Your task to perform on an android device: show emergency info Image 0: 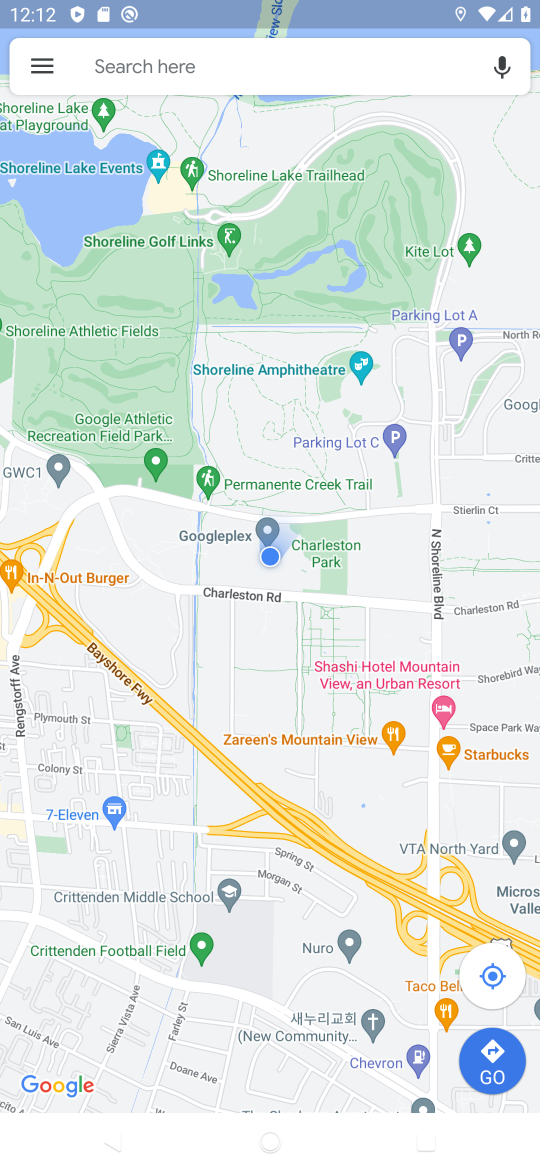
Step 0: press home button
Your task to perform on an android device: show emergency info Image 1: 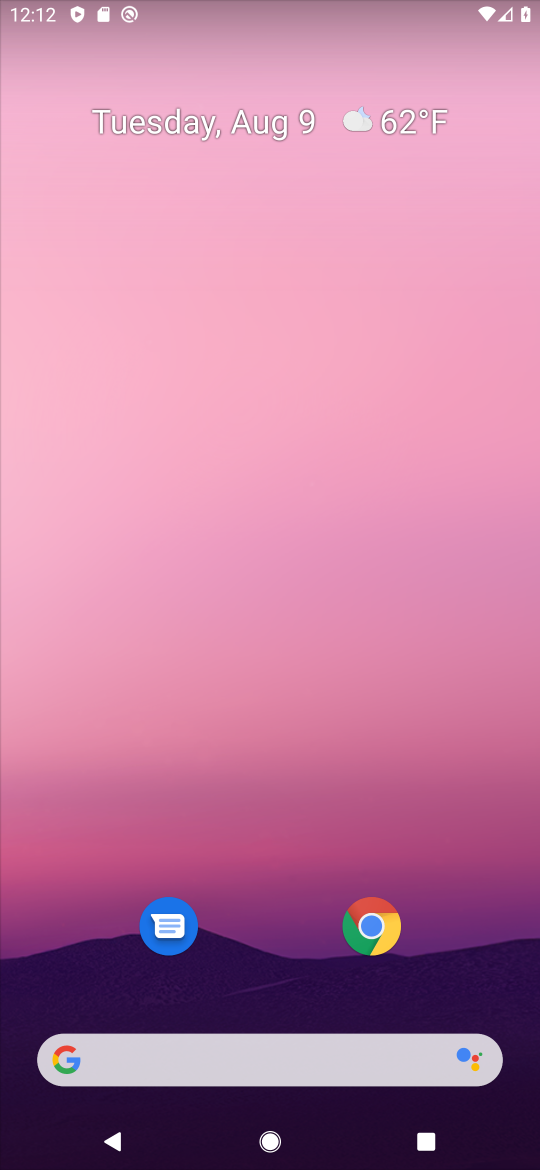
Step 1: click (109, 582)
Your task to perform on an android device: show emergency info Image 2: 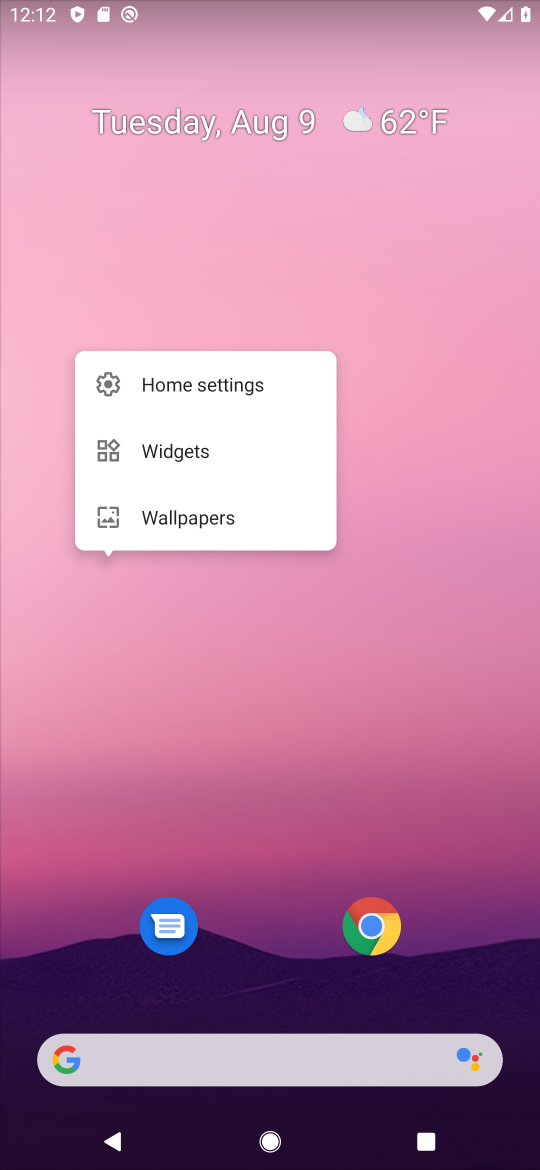
Step 2: drag from (49, 870) to (226, 314)
Your task to perform on an android device: show emergency info Image 3: 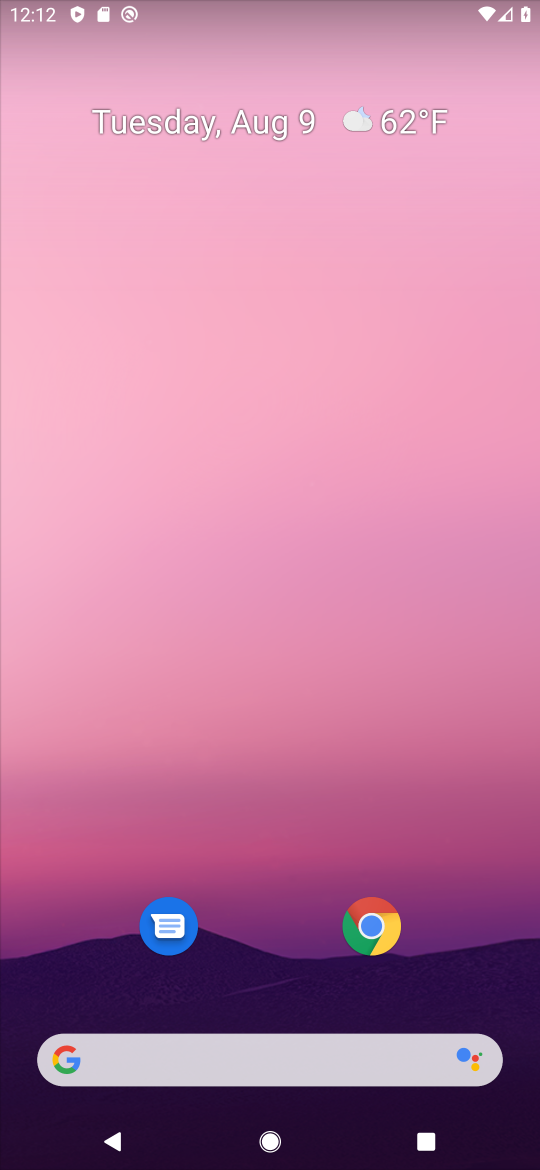
Step 3: drag from (90, 843) to (231, 342)
Your task to perform on an android device: show emergency info Image 4: 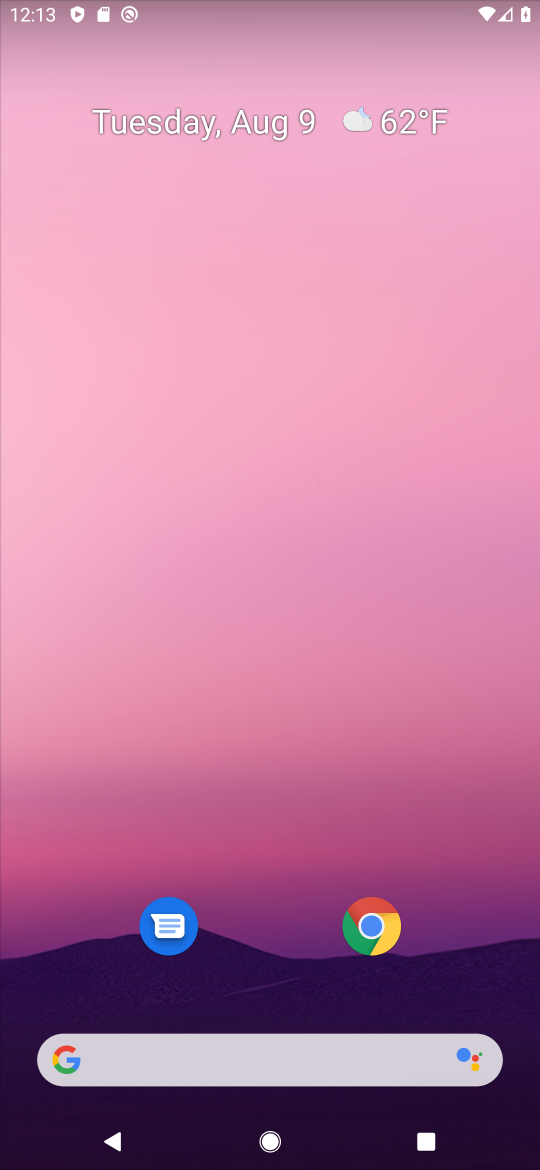
Step 4: drag from (67, 641) to (253, 176)
Your task to perform on an android device: show emergency info Image 5: 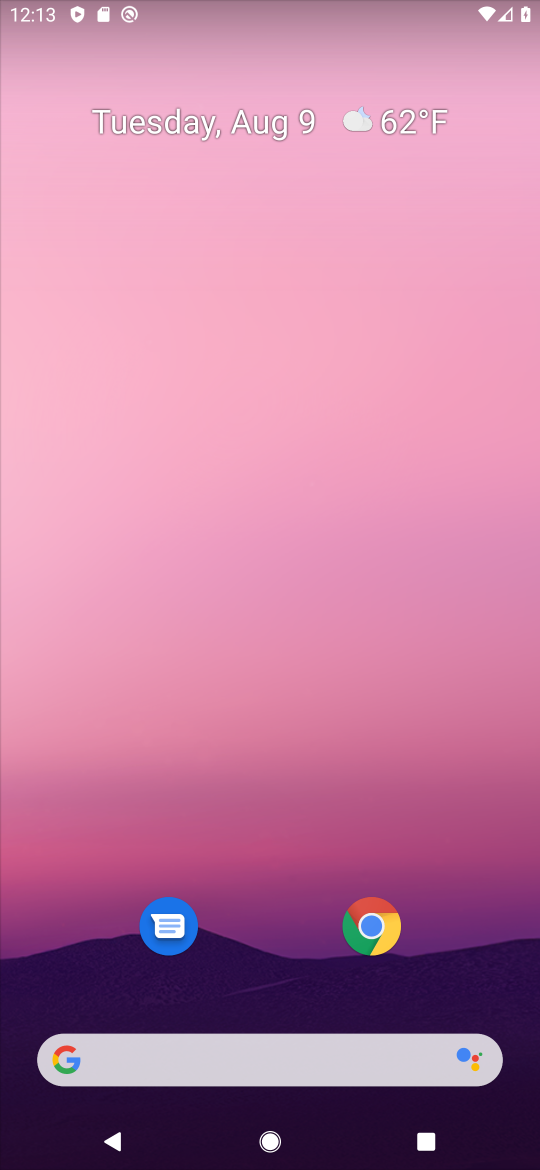
Step 5: drag from (27, 954) to (278, 142)
Your task to perform on an android device: show emergency info Image 6: 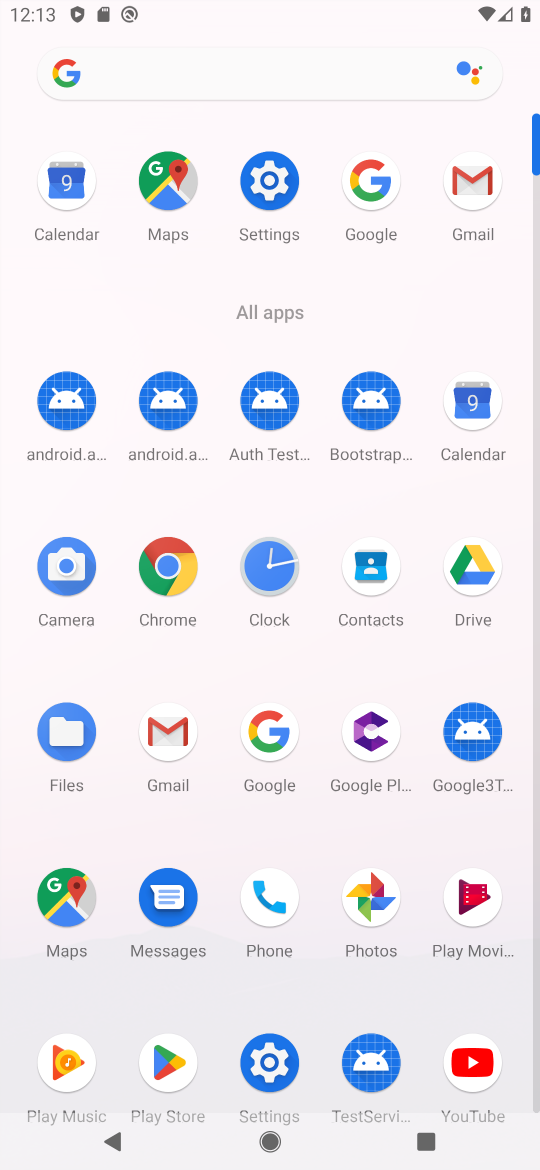
Step 6: click (267, 170)
Your task to perform on an android device: show emergency info Image 7: 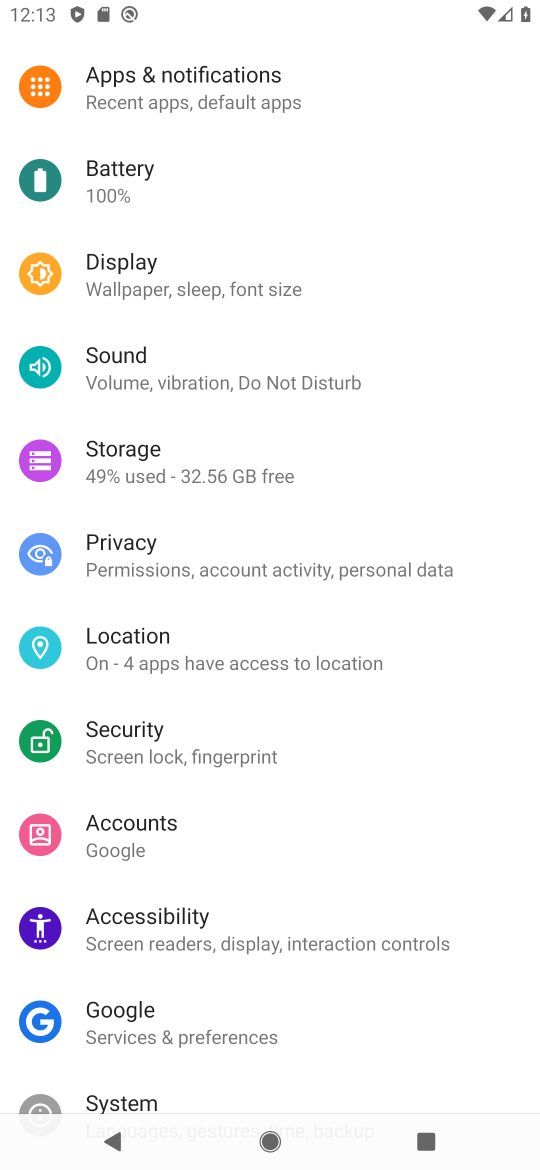
Step 7: drag from (23, 966) to (336, 93)
Your task to perform on an android device: show emergency info Image 8: 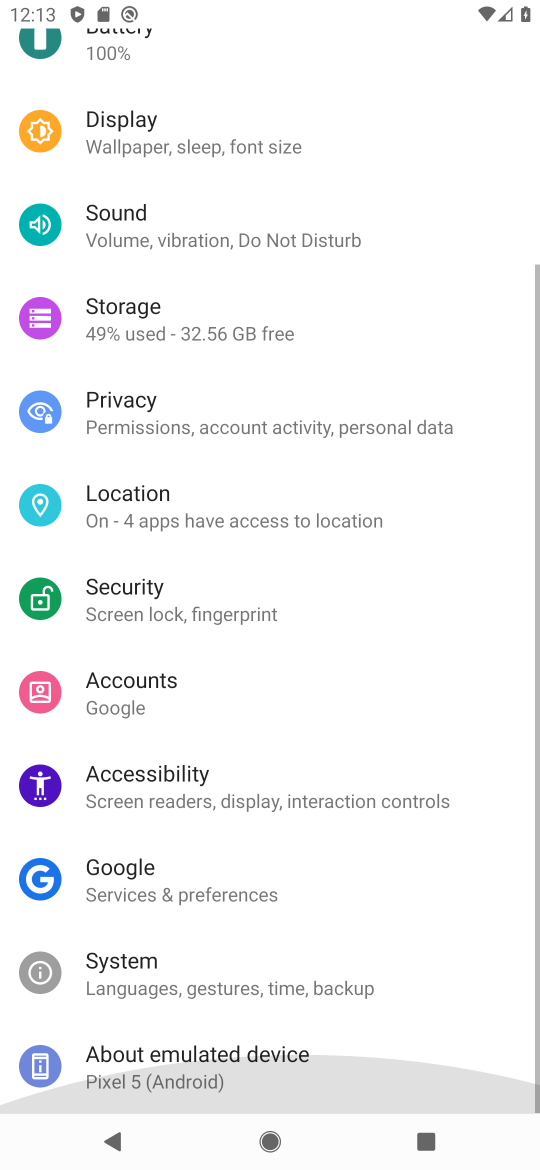
Step 8: click (365, 49)
Your task to perform on an android device: show emergency info Image 9: 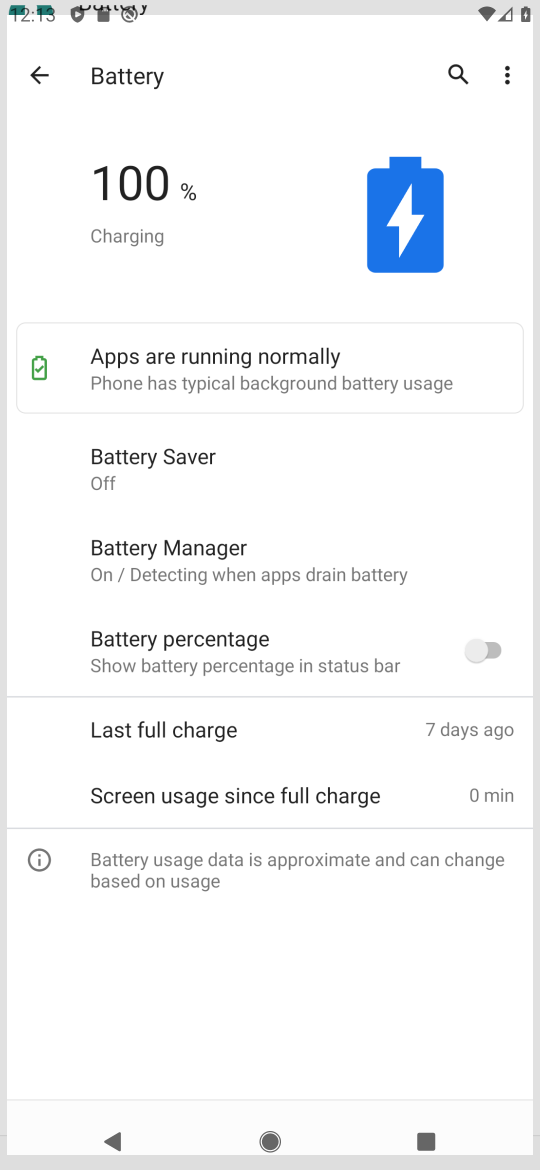
Step 9: click (170, 1077)
Your task to perform on an android device: show emergency info Image 10: 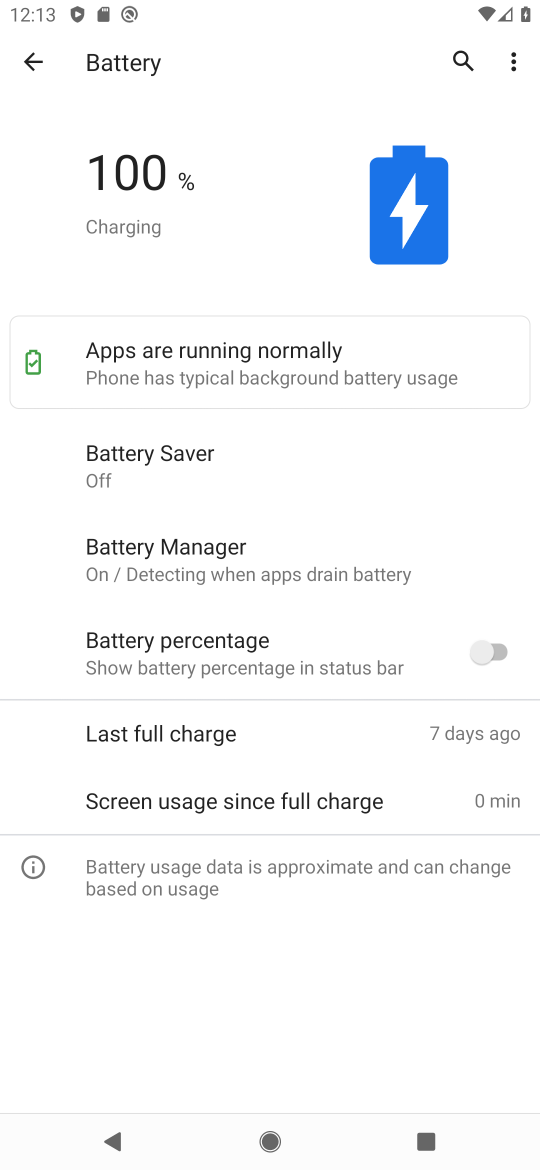
Step 10: click (175, 1064)
Your task to perform on an android device: show emergency info Image 11: 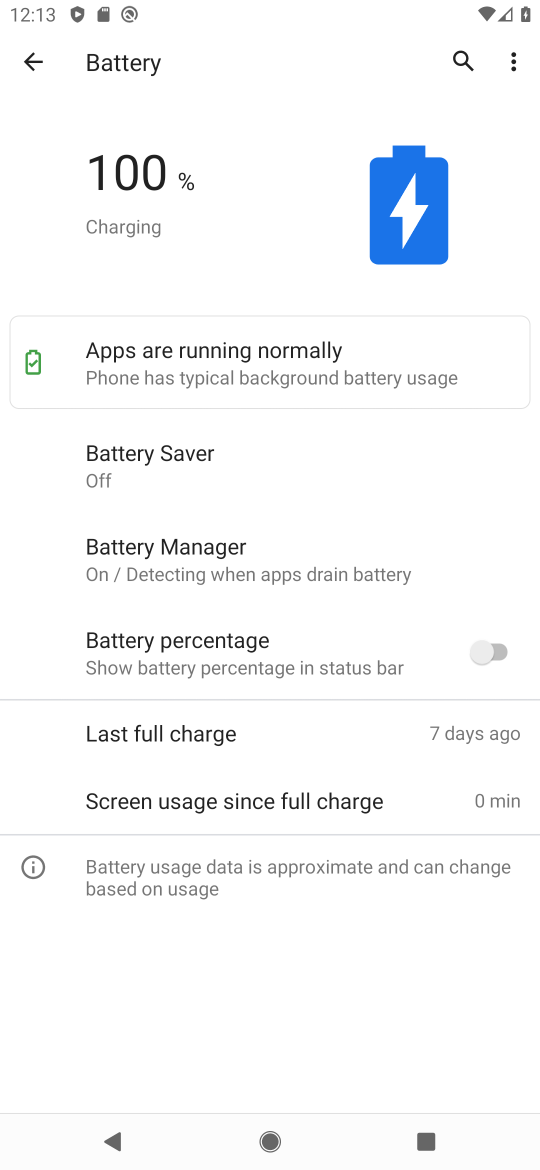
Step 11: press back button
Your task to perform on an android device: show emergency info Image 12: 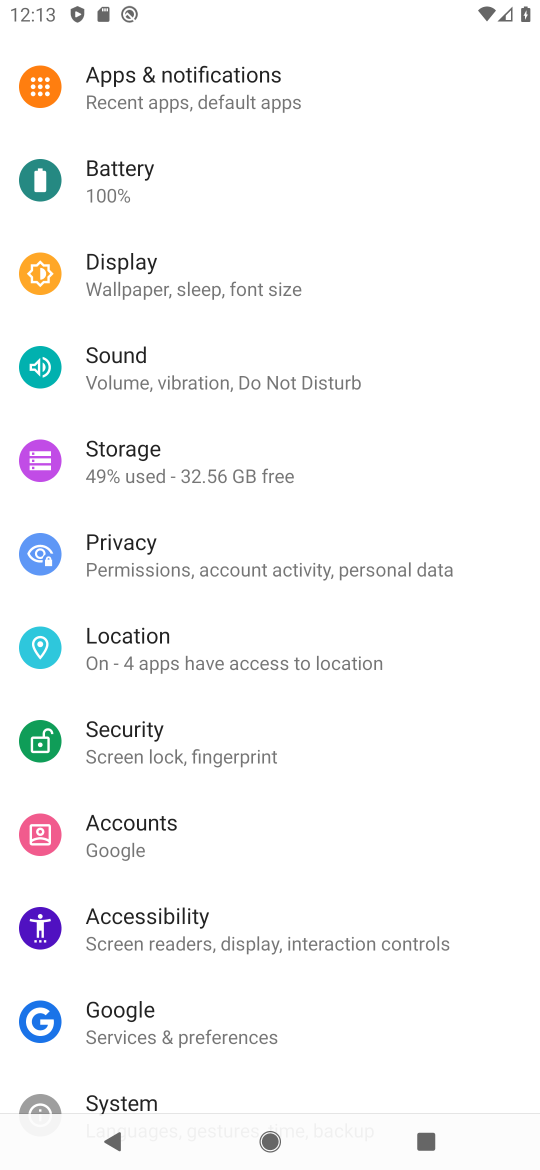
Step 12: drag from (94, 804) to (344, 150)
Your task to perform on an android device: show emergency info Image 13: 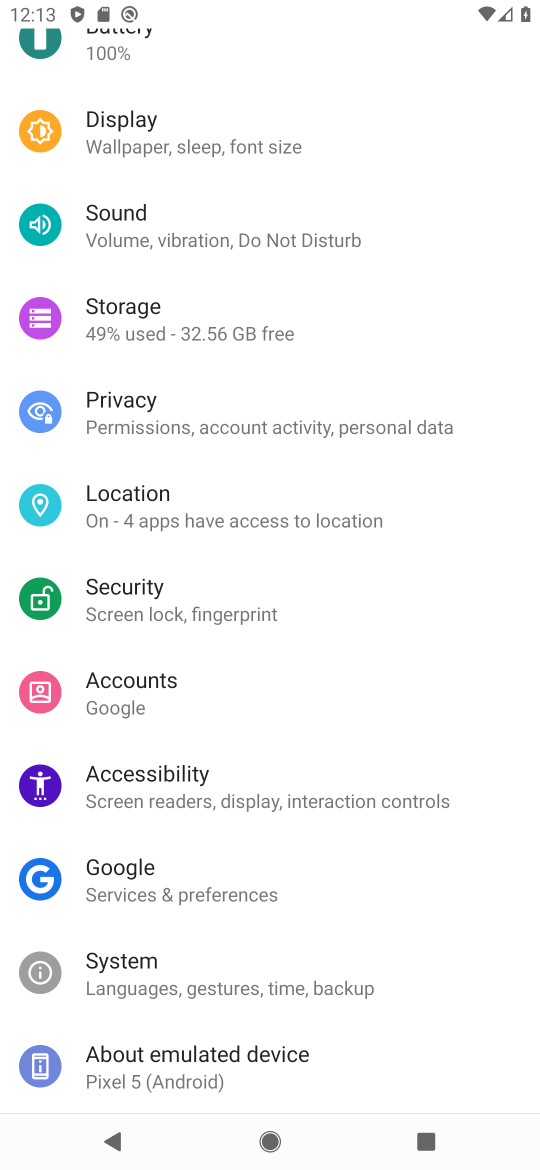
Step 13: click (208, 1064)
Your task to perform on an android device: show emergency info Image 14: 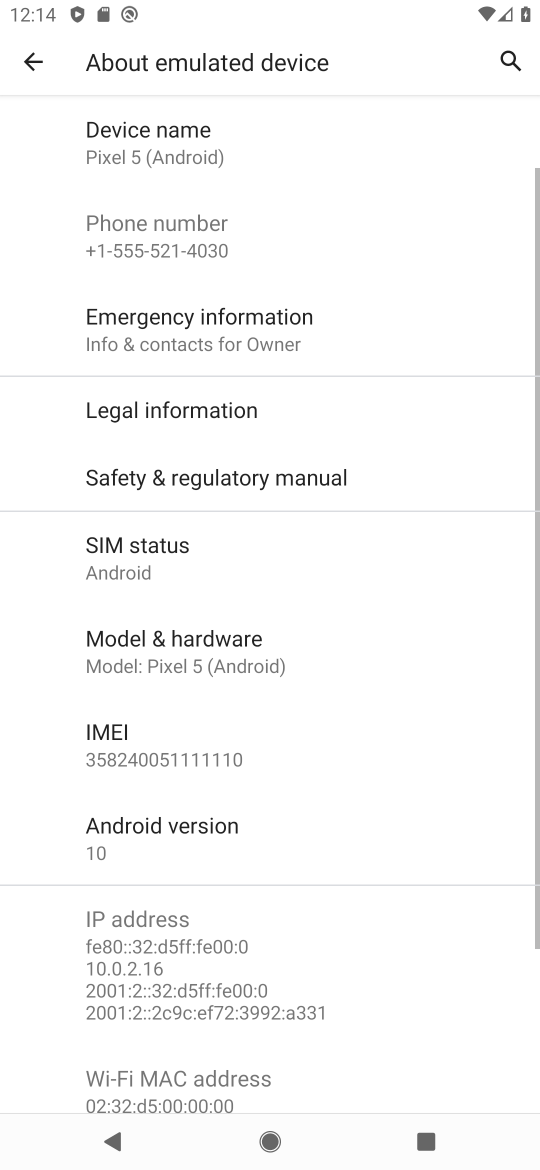
Step 14: click (216, 328)
Your task to perform on an android device: show emergency info Image 15: 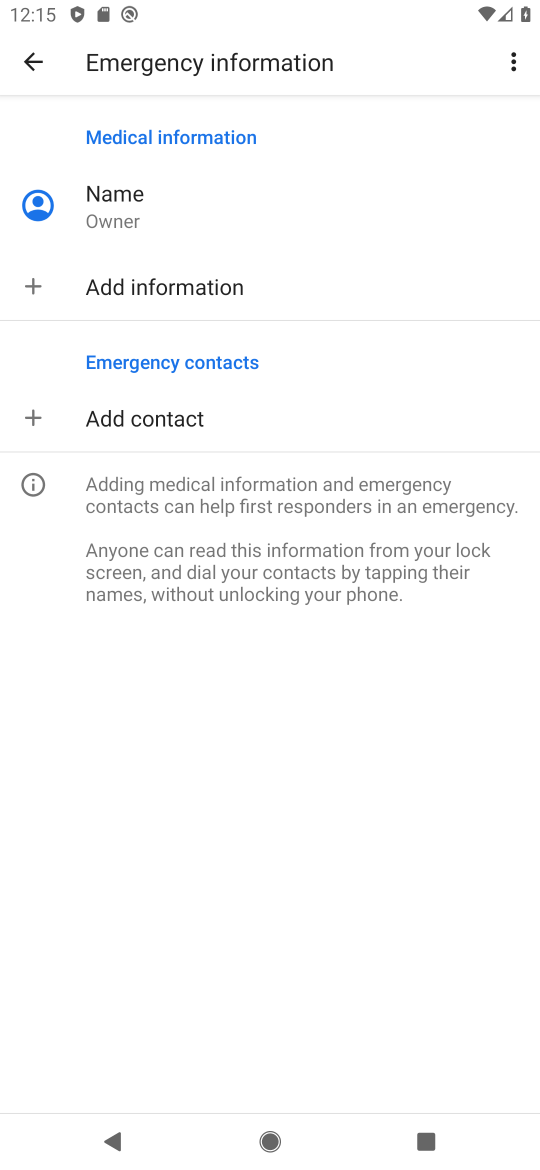
Step 15: task complete